Your task to perform on an android device: see sites visited before in the chrome app Image 0: 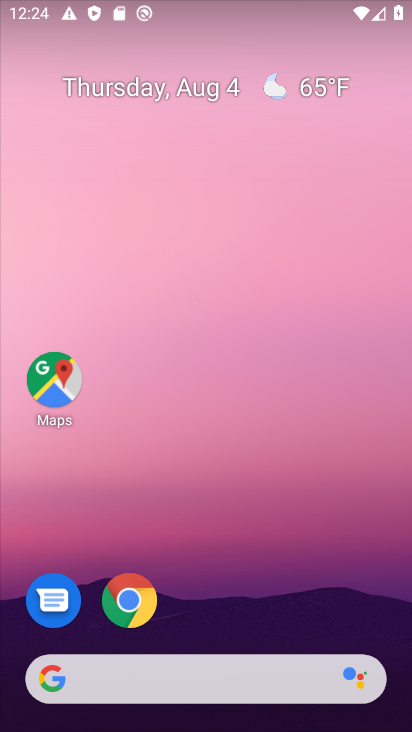
Step 0: click (121, 598)
Your task to perform on an android device: see sites visited before in the chrome app Image 1: 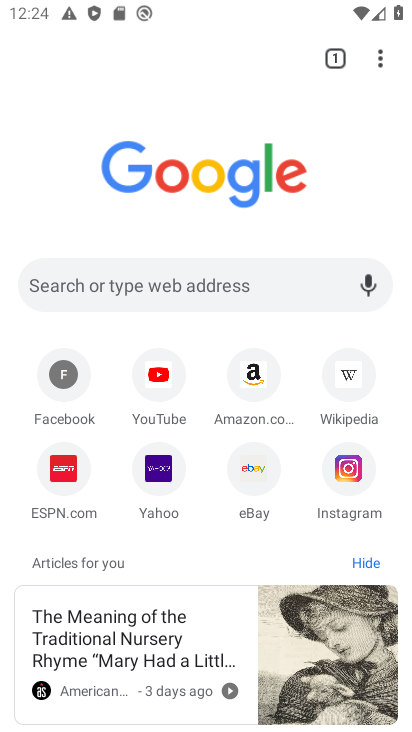
Step 1: click (382, 51)
Your task to perform on an android device: see sites visited before in the chrome app Image 2: 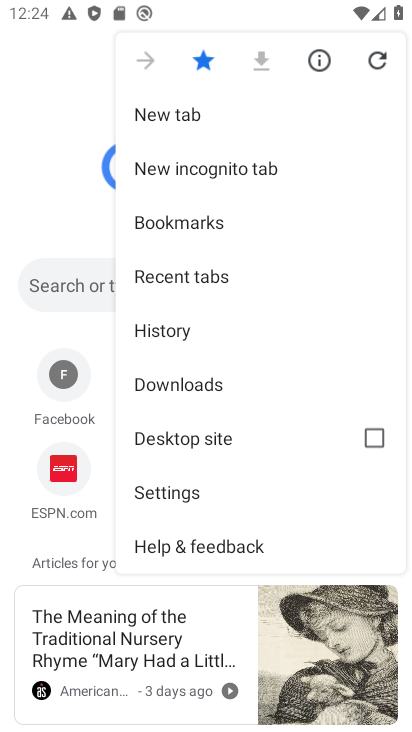
Step 2: click (169, 328)
Your task to perform on an android device: see sites visited before in the chrome app Image 3: 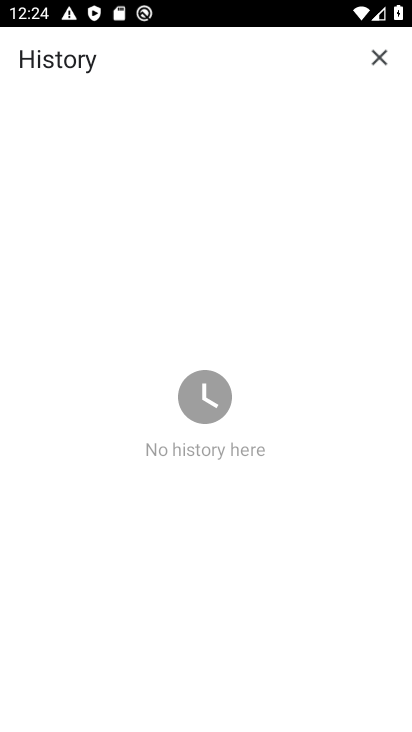
Step 3: task complete